Your task to perform on an android device: set default search engine in the chrome app Image 0: 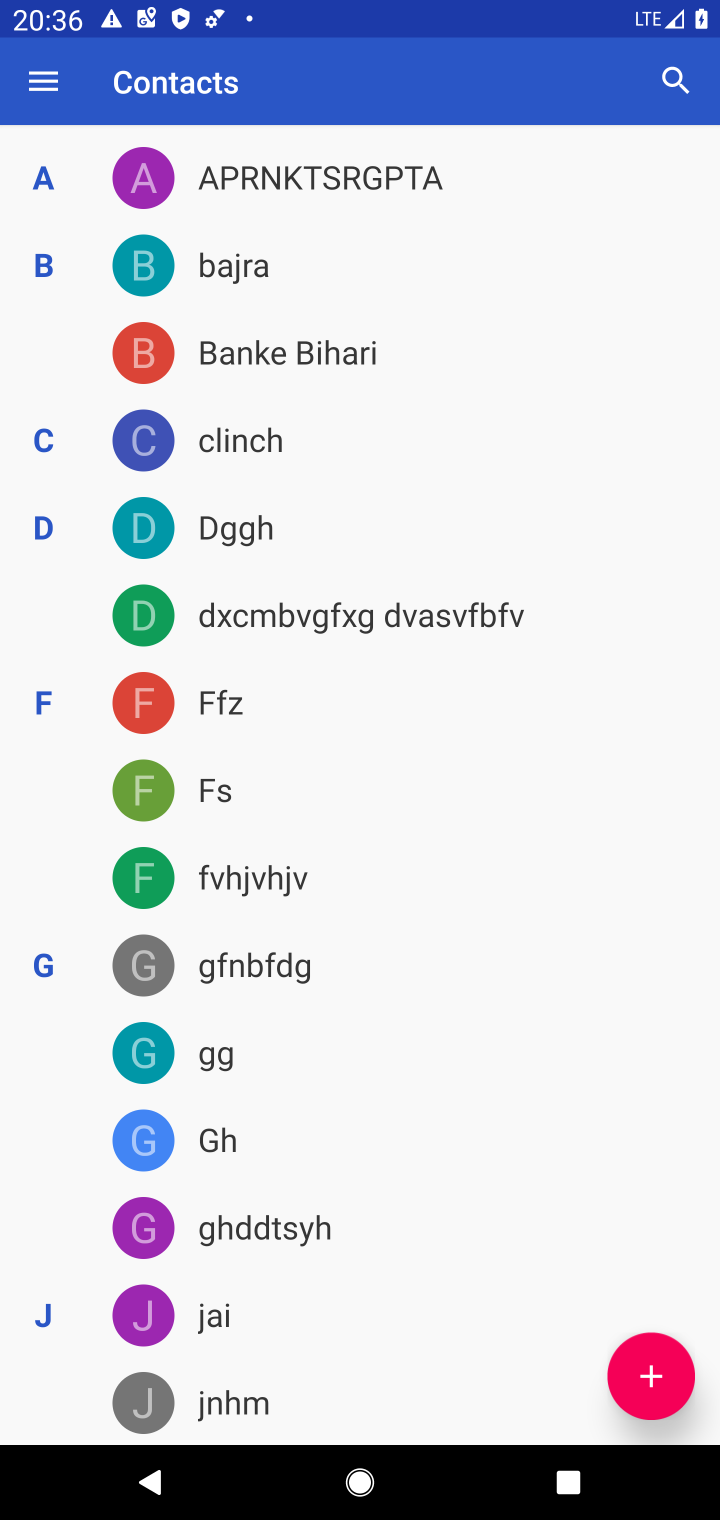
Step 0: press home button
Your task to perform on an android device: set default search engine in the chrome app Image 1: 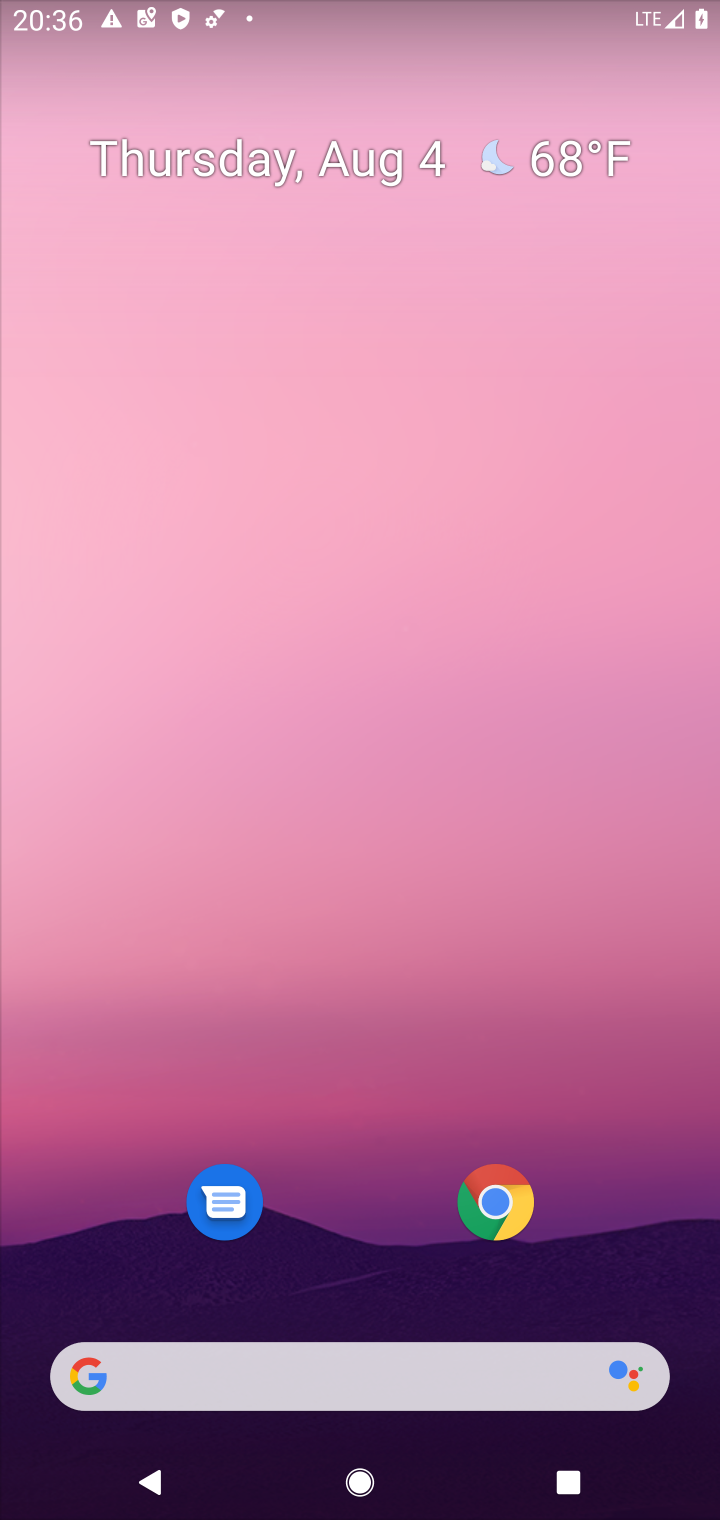
Step 1: click (477, 1193)
Your task to perform on an android device: set default search engine in the chrome app Image 2: 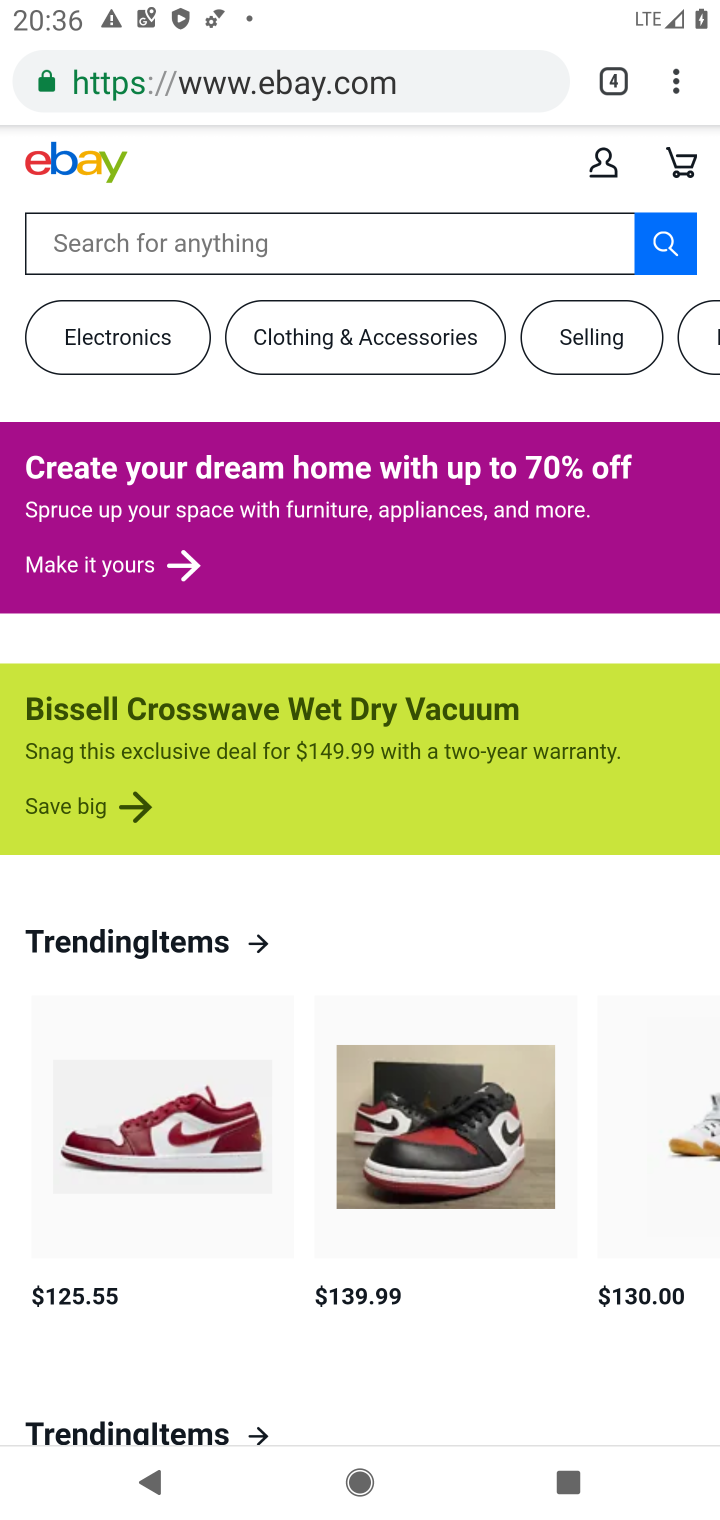
Step 2: click (671, 90)
Your task to perform on an android device: set default search engine in the chrome app Image 3: 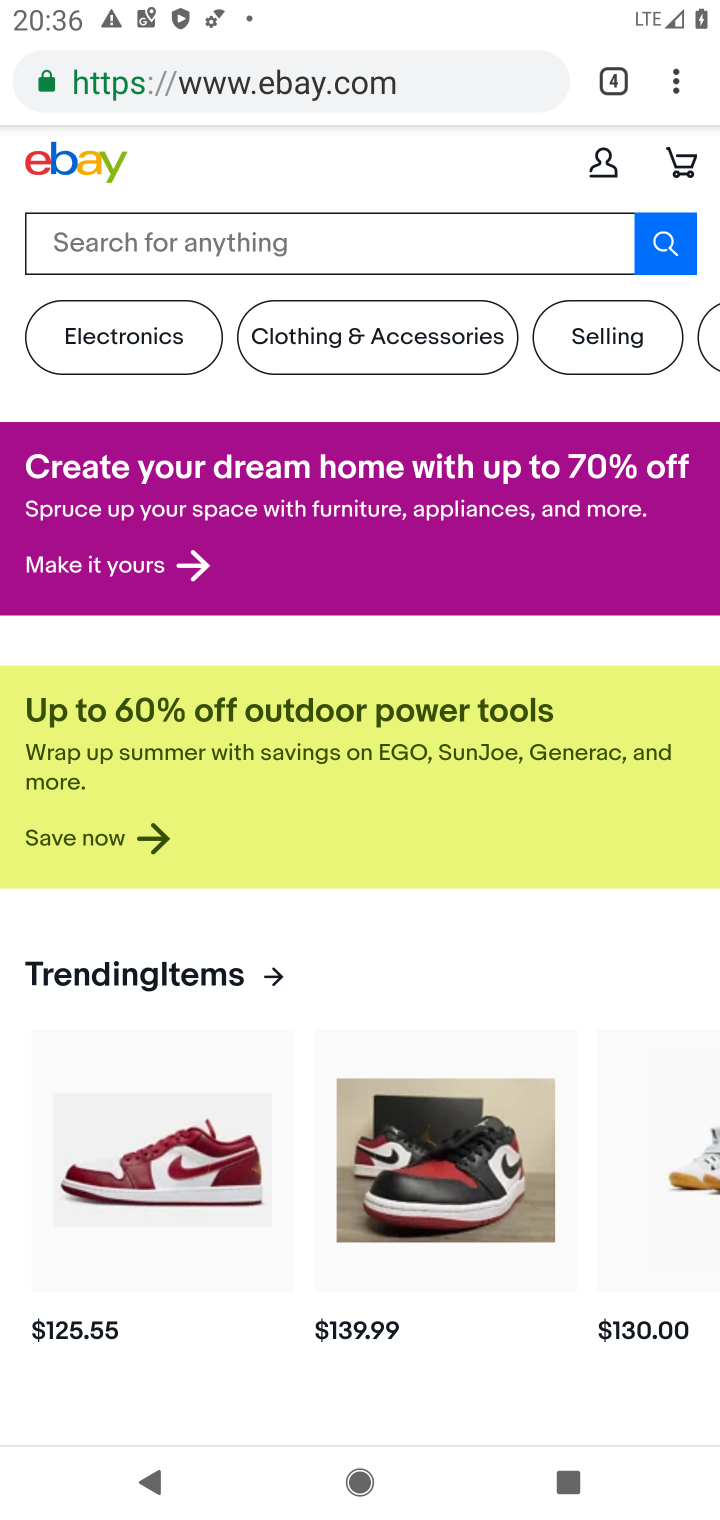
Step 3: drag from (674, 78) to (391, 977)
Your task to perform on an android device: set default search engine in the chrome app Image 4: 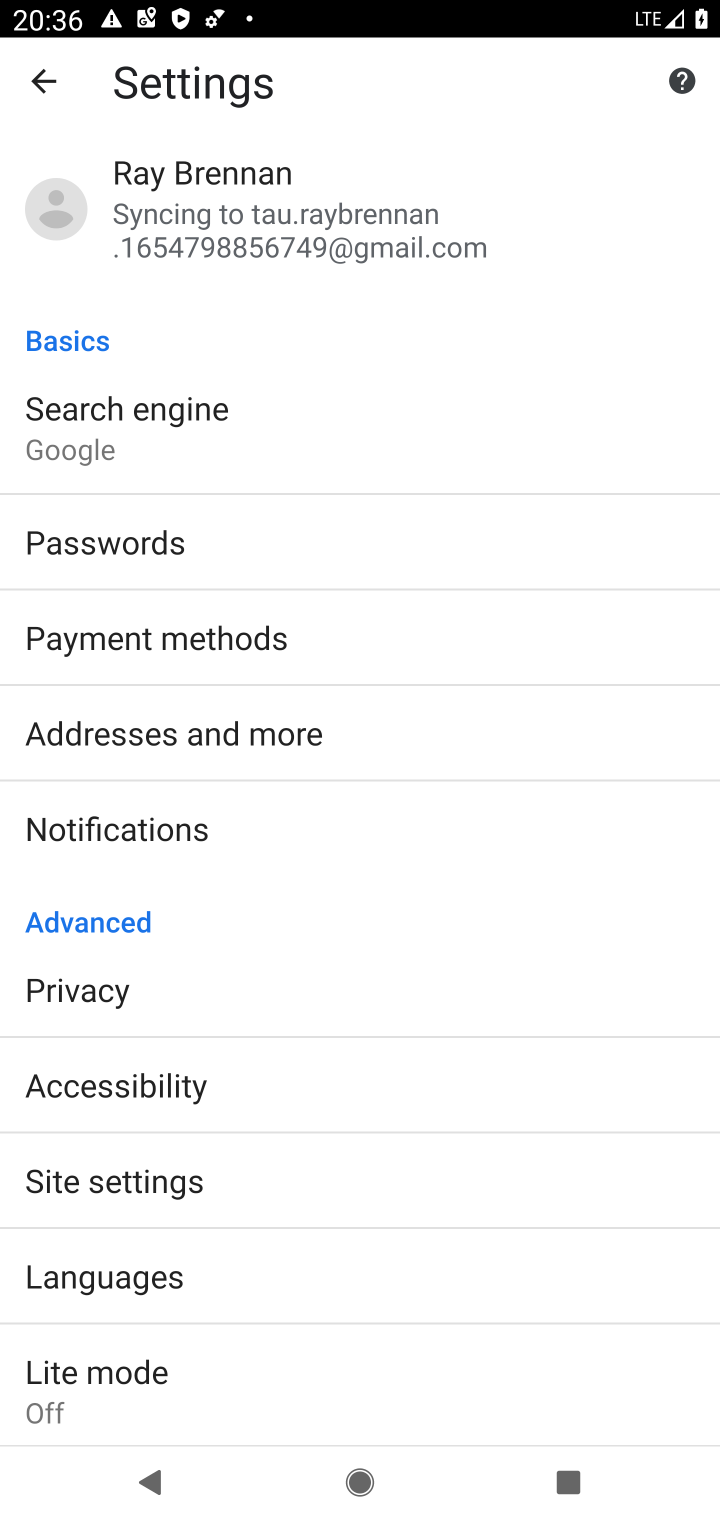
Step 4: click (194, 447)
Your task to perform on an android device: set default search engine in the chrome app Image 5: 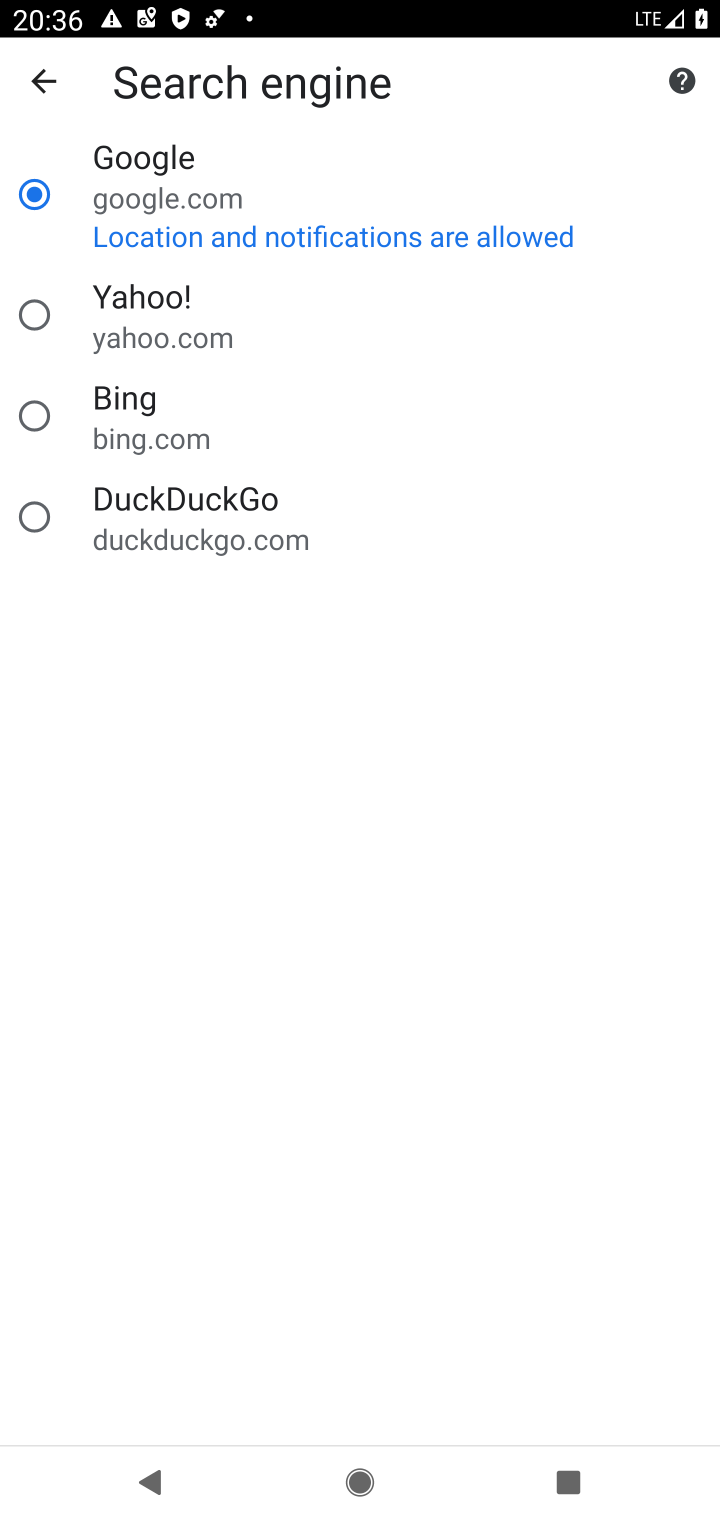
Step 5: task complete